Your task to perform on an android device: Open the calendar app, open the side menu, and click the "Day" option Image 0: 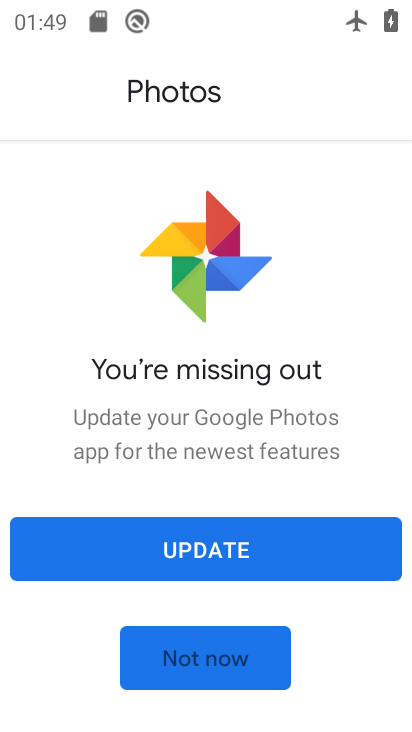
Step 0: press home button
Your task to perform on an android device: Open the calendar app, open the side menu, and click the "Day" option Image 1: 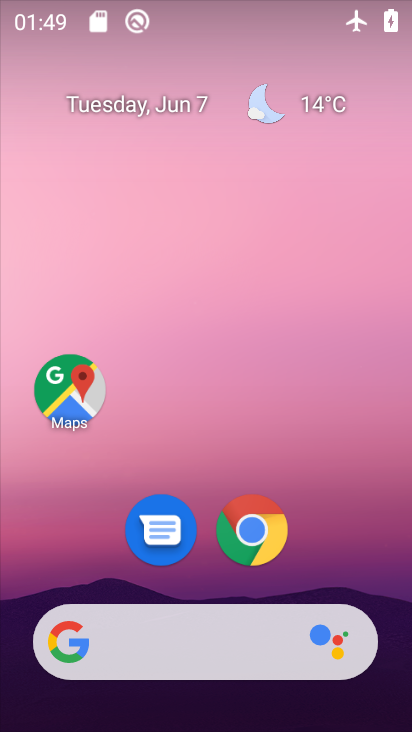
Step 1: drag from (186, 575) to (174, 169)
Your task to perform on an android device: Open the calendar app, open the side menu, and click the "Day" option Image 2: 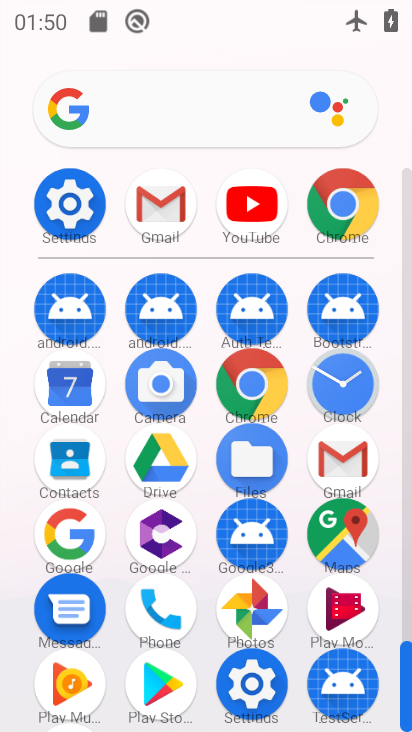
Step 2: click (61, 379)
Your task to perform on an android device: Open the calendar app, open the side menu, and click the "Day" option Image 3: 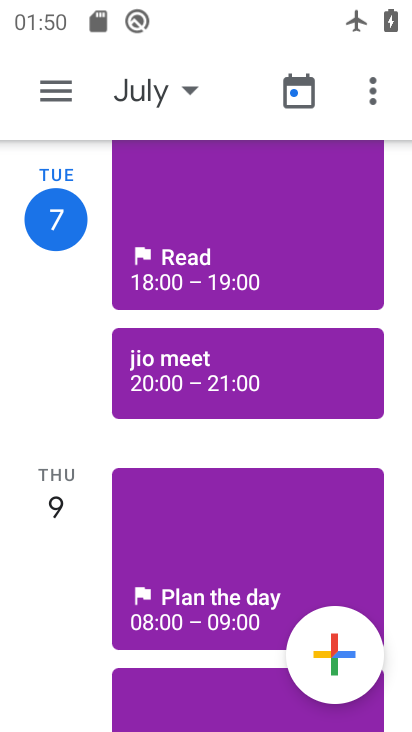
Step 3: click (59, 75)
Your task to perform on an android device: Open the calendar app, open the side menu, and click the "Day" option Image 4: 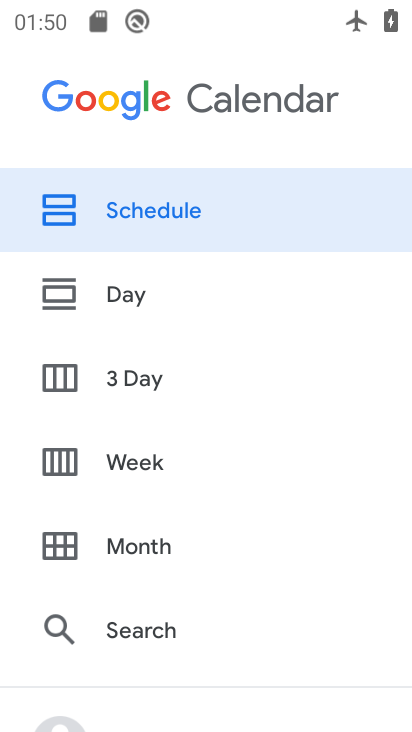
Step 4: click (159, 310)
Your task to perform on an android device: Open the calendar app, open the side menu, and click the "Day" option Image 5: 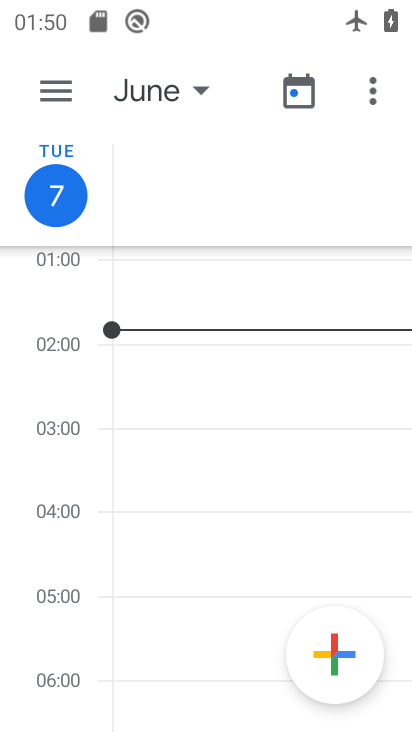
Step 5: task complete